Your task to perform on an android device: Open my contact list Image 0: 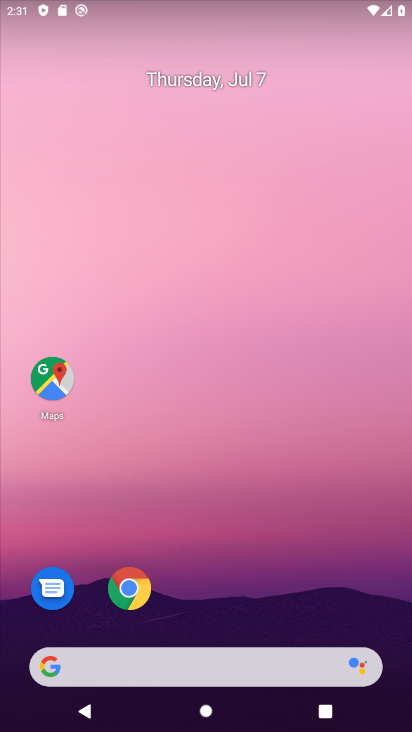
Step 0: drag from (254, 601) to (224, 2)
Your task to perform on an android device: Open my contact list Image 1: 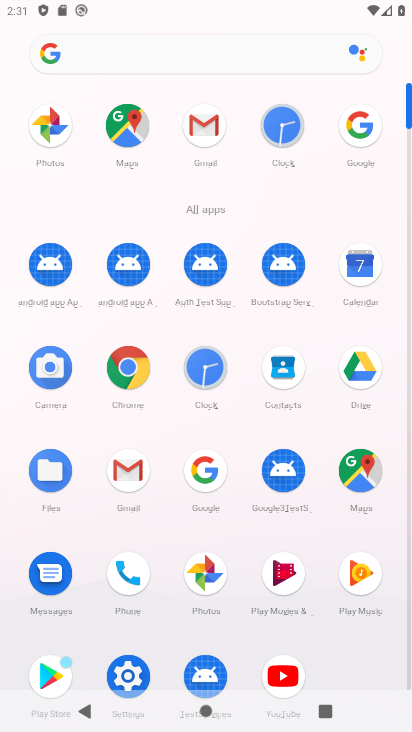
Step 1: click (282, 372)
Your task to perform on an android device: Open my contact list Image 2: 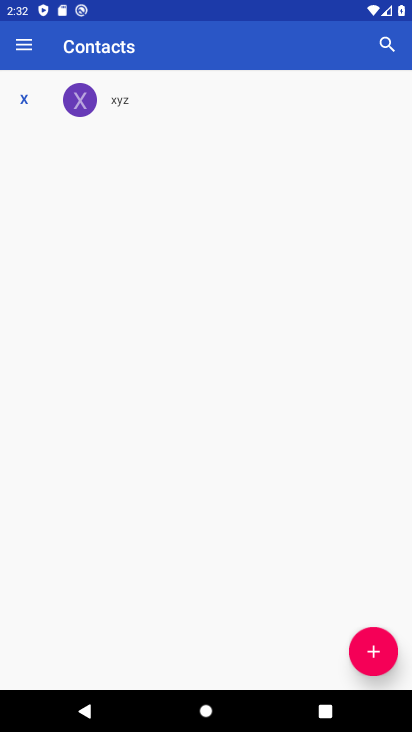
Step 2: task complete